Your task to perform on an android device: turn pop-ups off in chrome Image 0: 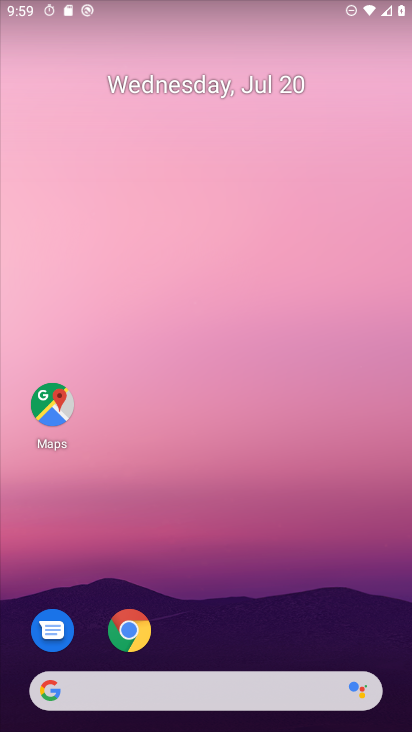
Step 0: drag from (204, 661) to (211, 71)
Your task to perform on an android device: turn pop-ups off in chrome Image 1: 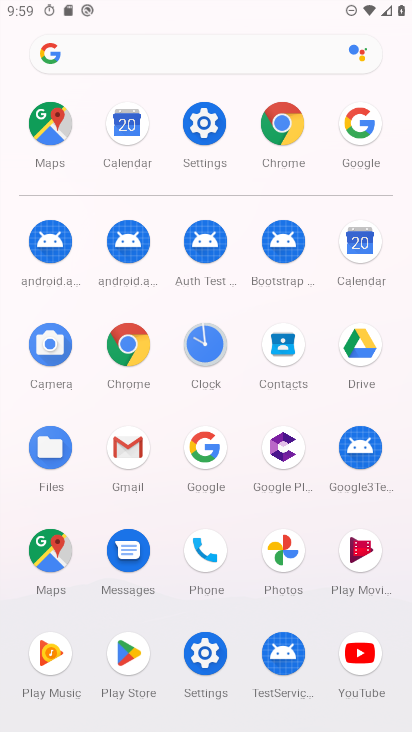
Step 1: click (288, 134)
Your task to perform on an android device: turn pop-ups off in chrome Image 2: 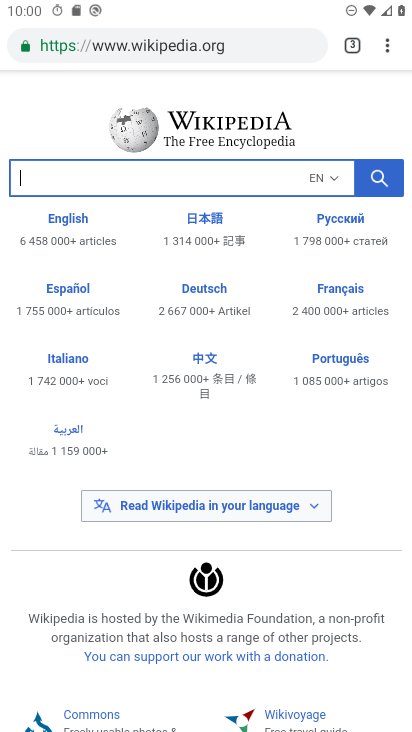
Step 2: click (387, 44)
Your task to perform on an android device: turn pop-ups off in chrome Image 3: 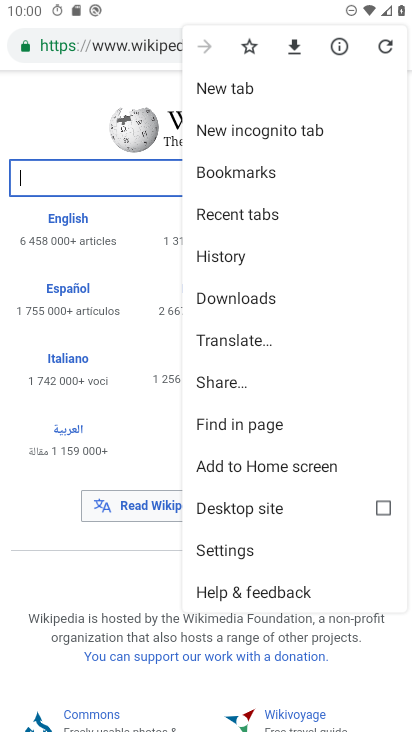
Step 3: click (241, 545)
Your task to perform on an android device: turn pop-ups off in chrome Image 4: 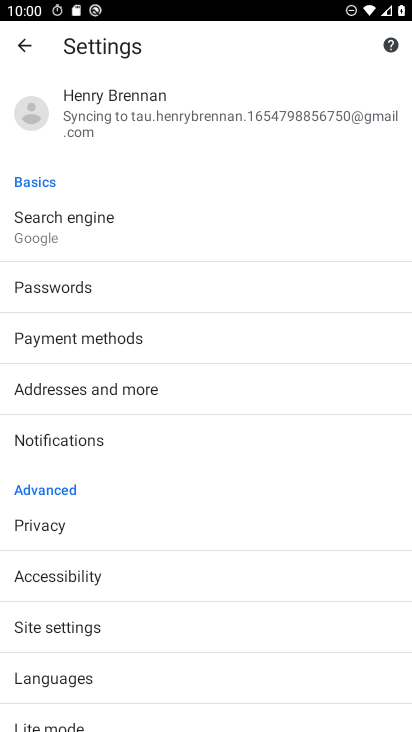
Step 4: click (73, 630)
Your task to perform on an android device: turn pop-ups off in chrome Image 5: 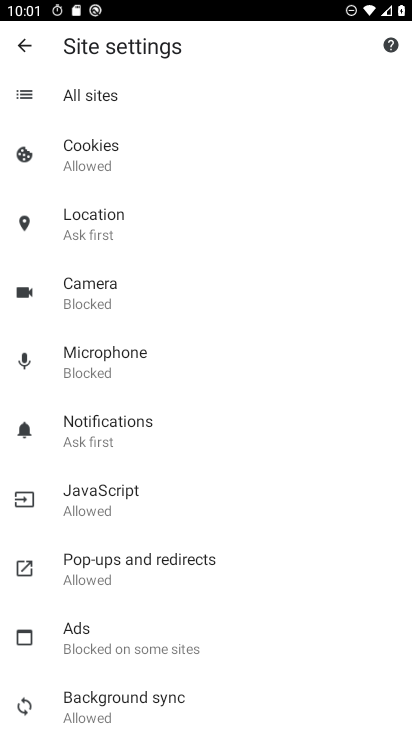
Step 5: click (125, 583)
Your task to perform on an android device: turn pop-ups off in chrome Image 6: 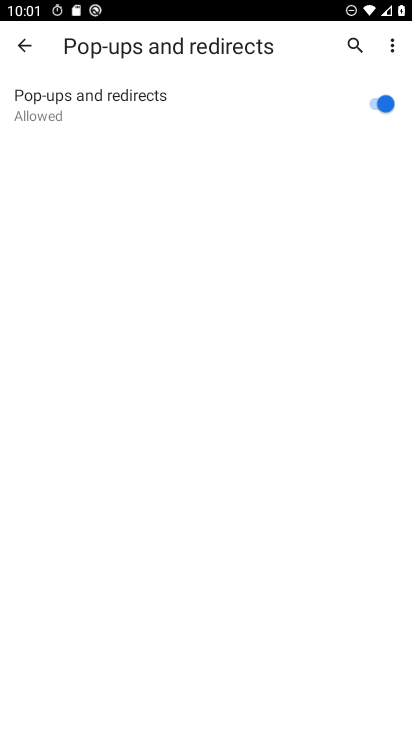
Step 6: click (376, 104)
Your task to perform on an android device: turn pop-ups off in chrome Image 7: 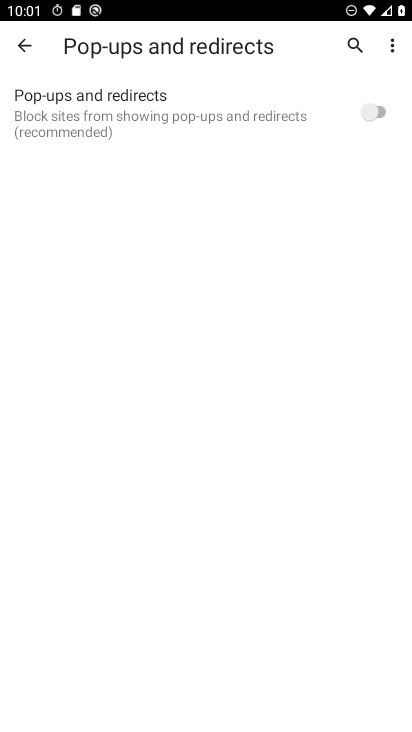
Step 7: task complete